Your task to perform on an android device: toggle notification dots Image 0: 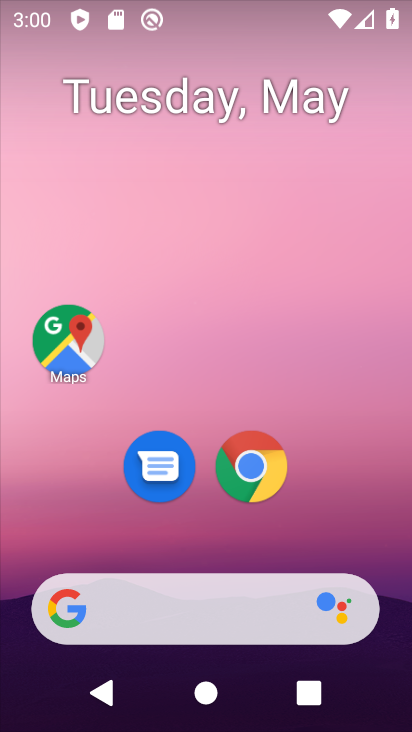
Step 0: drag from (336, 531) to (337, 328)
Your task to perform on an android device: toggle notification dots Image 1: 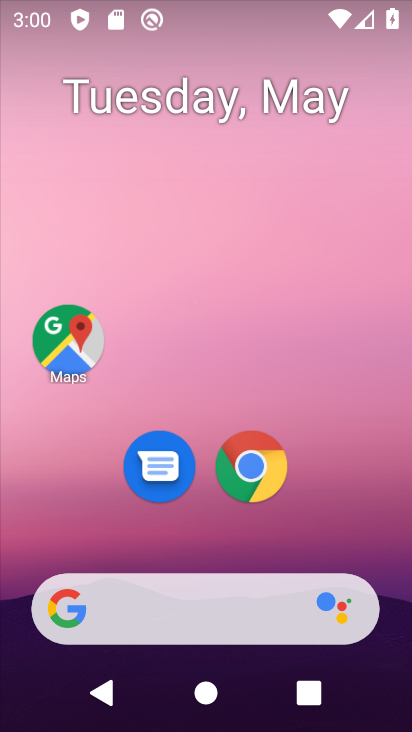
Step 1: drag from (318, 494) to (299, 326)
Your task to perform on an android device: toggle notification dots Image 2: 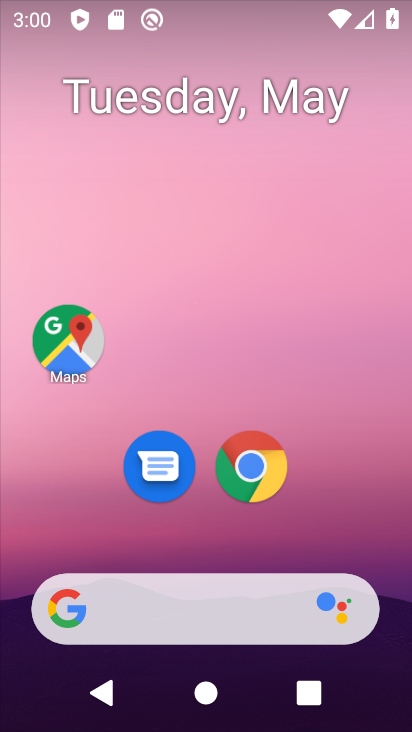
Step 2: drag from (281, 542) to (286, 256)
Your task to perform on an android device: toggle notification dots Image 3: 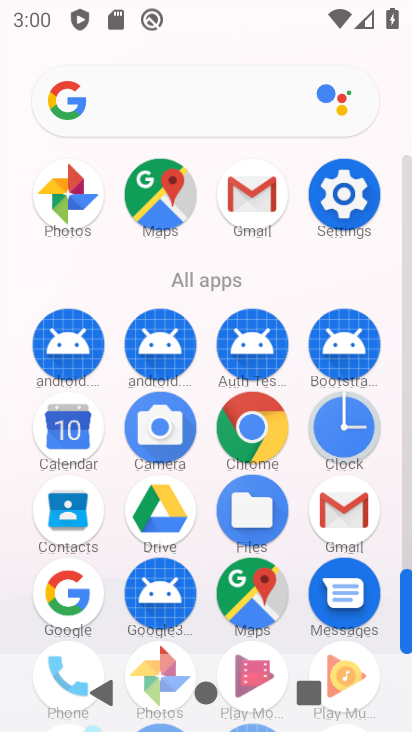
Step 3: click (347, 199)
Your task to perform on an android device: toggle notification dots Image 4: 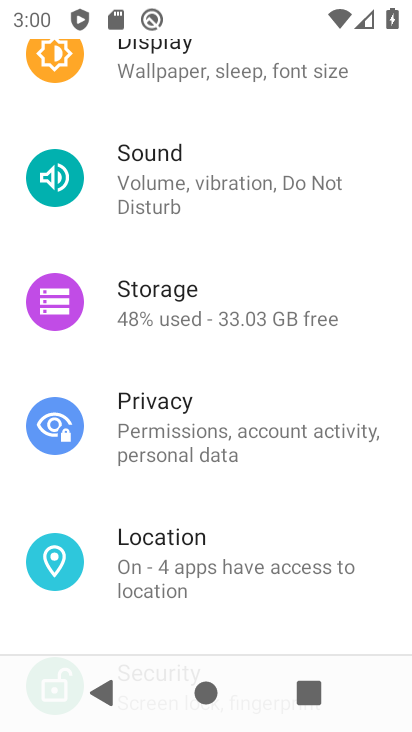
Step 4: drag from (216, 97) to (266, 469)
Your task to perform on an android device: toggle notification dots Image 5: 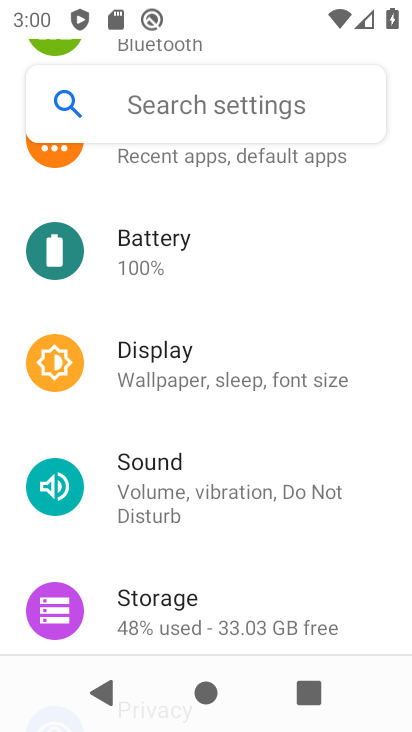
Step 5: click (209, 105)
Your task to perform on an android device: toggle notification dots Image 6: 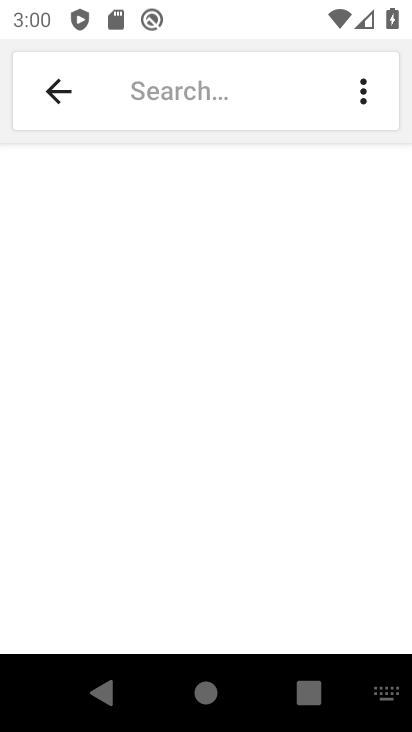
Step 6: click (231, 65)
Your task to perform on an android device: toggle notification dots Image 7: 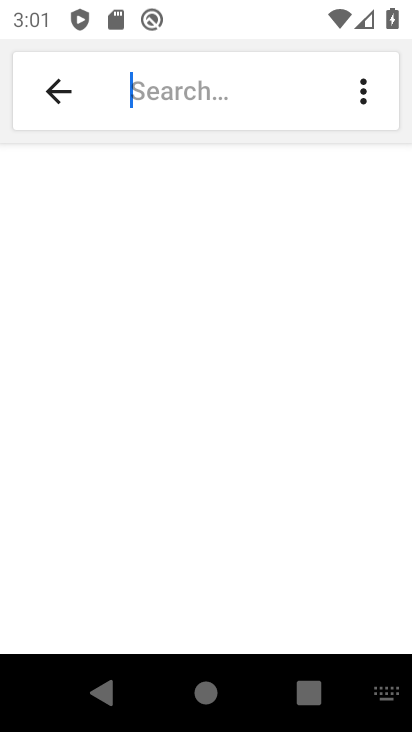
Step 7: click (185, 106)
Your task to perform on an android device: toggle notification dots Image 8: 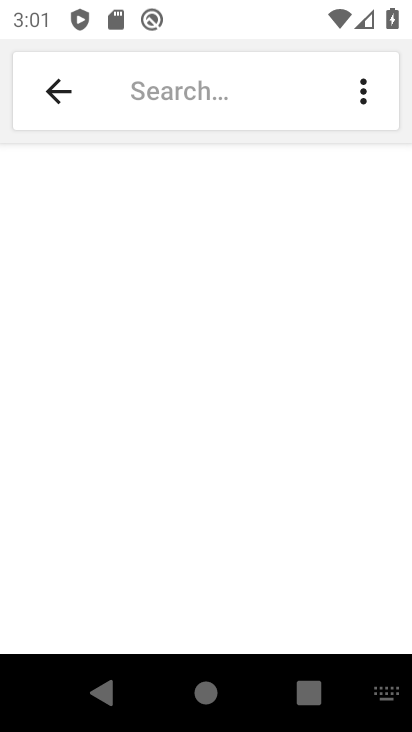
Step 8: type "notification dots"
Your task to perform on an android device: toggle notification dots Image 9: 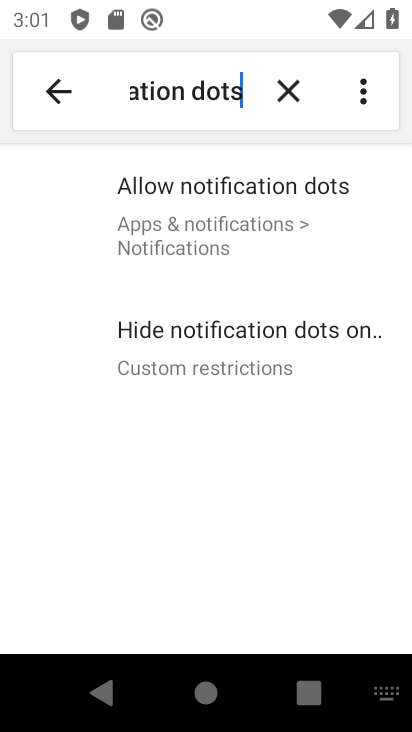
Step 9: click (209, 190)
Your task to perform on an android device: toggle notification dots Image 10: 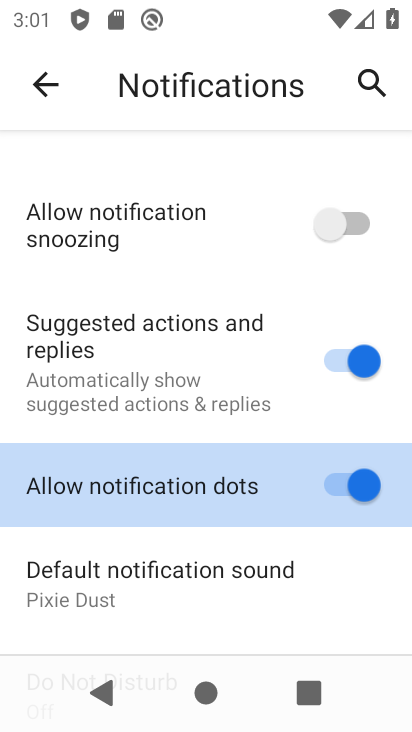
Step 10: click (342, 490)
Your task to perform on an android device: toggle notification dots Image 11: 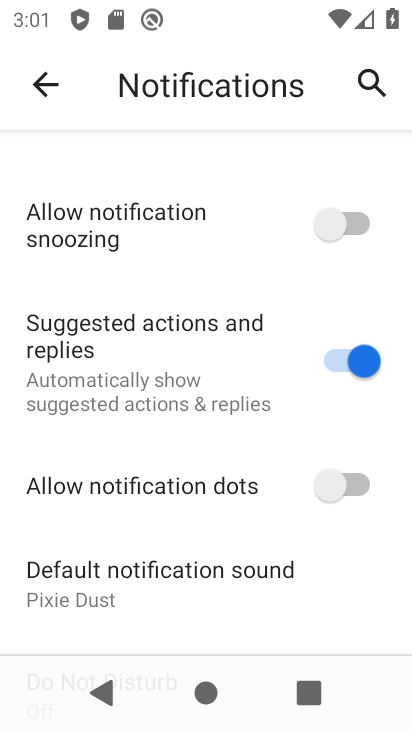
Step 11: task complete